Your task to perform on an android device: turn off translation in the chrome app Image 0: 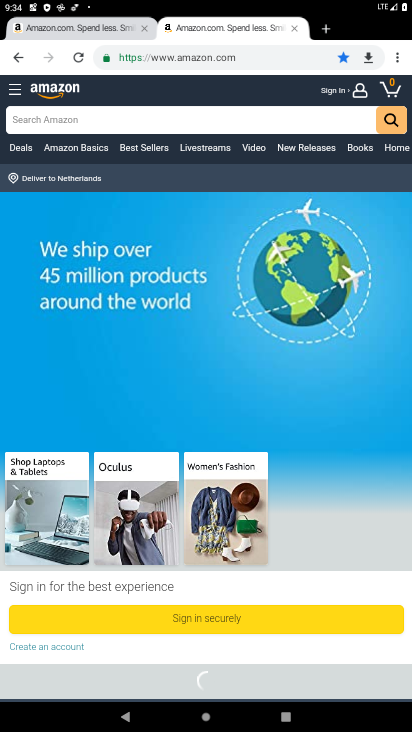
Step 0: click (400, 54)
Your task to perform on an android device: turn off translation in the chrome app Image 1: 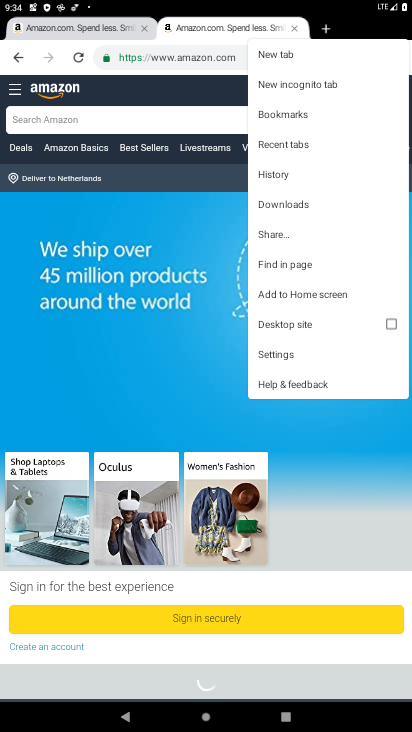
Step 1: click (278, 353)
Your task to perform on an android device: turn off translation in the chrome app Image 2: 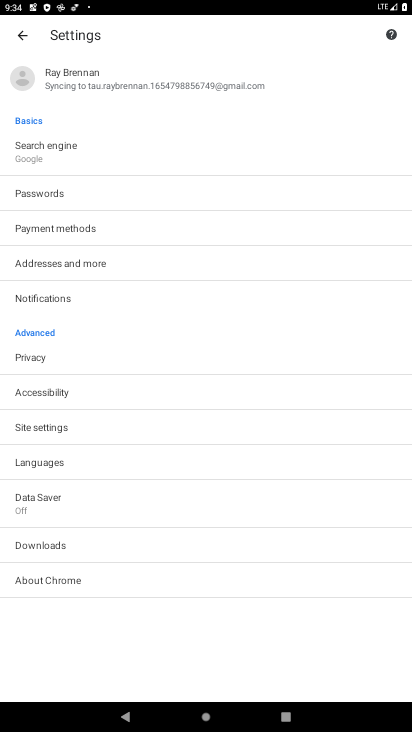
Step 2: click (78, 455)
Your task to perform on an android device: turn off translation in the chrome app Image 3: 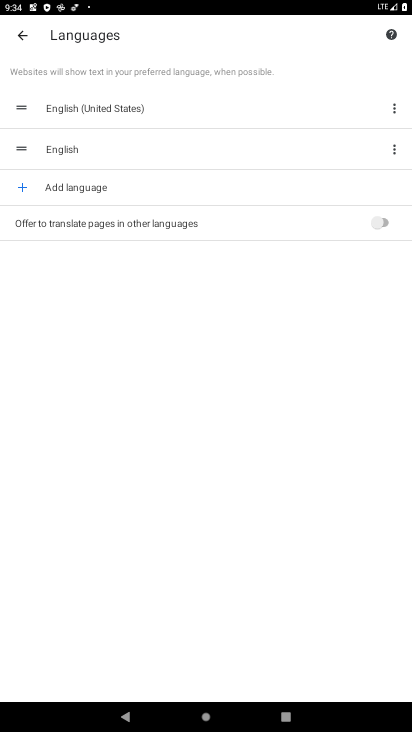
Step 3: click (372, 225)
Your task to perform on an android device: turn off translation in the chrome app Image 4: 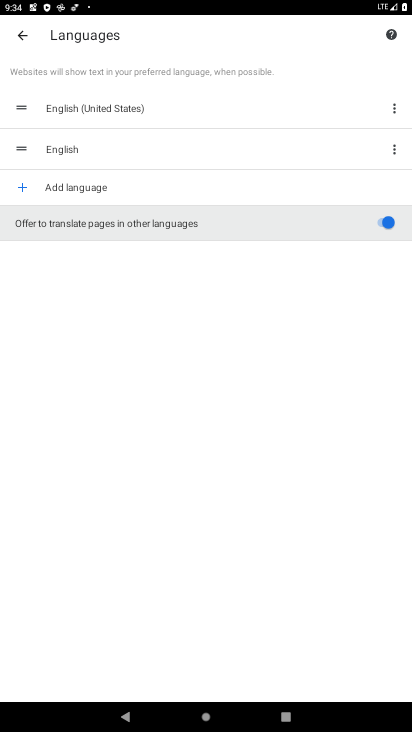
Step 4: click (372, 225)
Your task to perform on an android device: turn off translation in the chrome app Image 5: 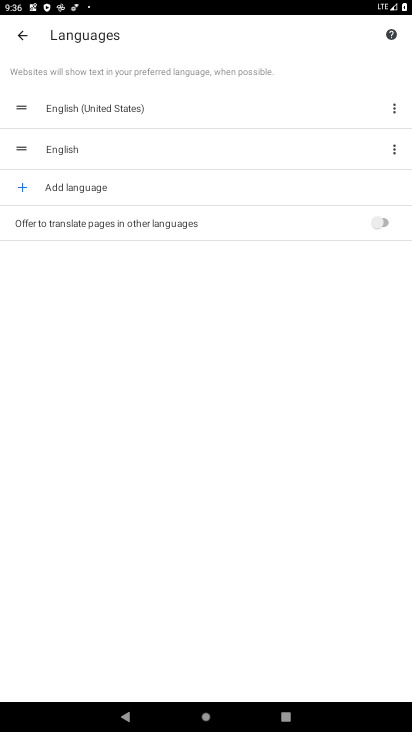
Step 5: task complete